Your task to perform on an android device: clear all cookies in the chrome app Image 0: 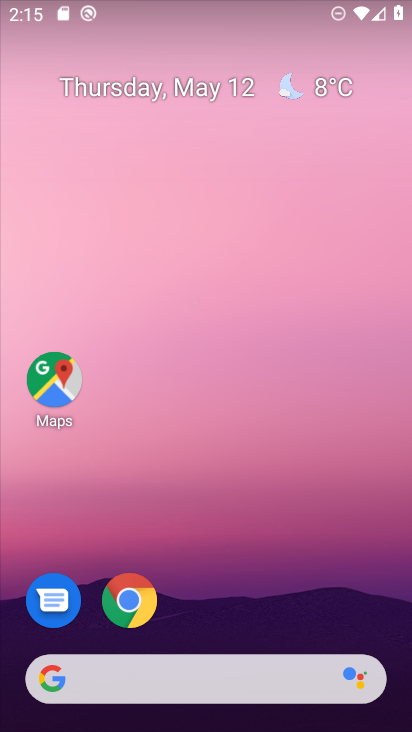
Step 0: click (135, 602)
Your task to perform on an android device: clear all cookies in the chrome app Image 1: 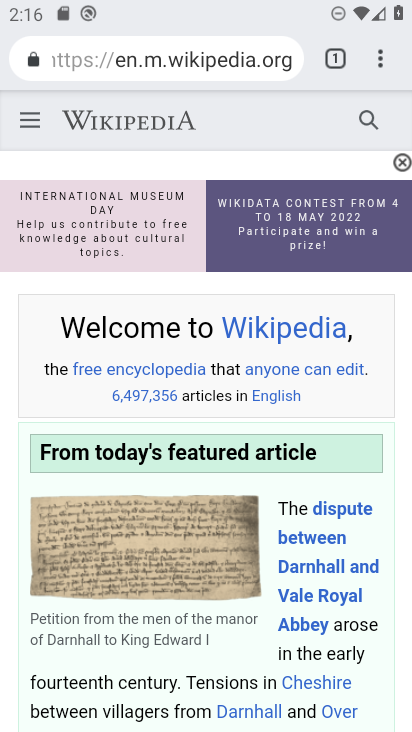
Step 1: click (382, 69)
Your task to perform on an android device: clear all cookies in the chrome app Image 2: 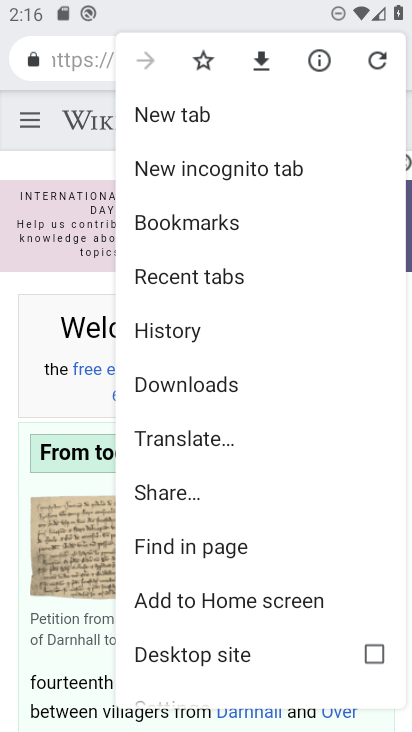
Step 2: drag from (178, 618) to (211, 291)
Your task to perform on an android device: clear all cookies in the chrome app Image 3: 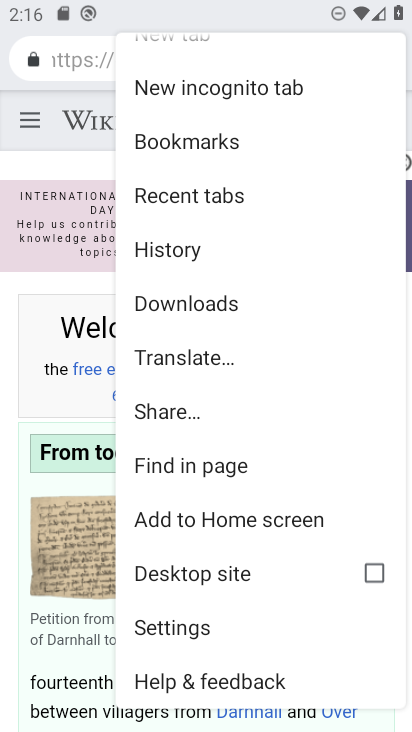
Step 3: click (168, 620)
Your task to perform on an android device: clear all cookies in the chrome app Image 4: 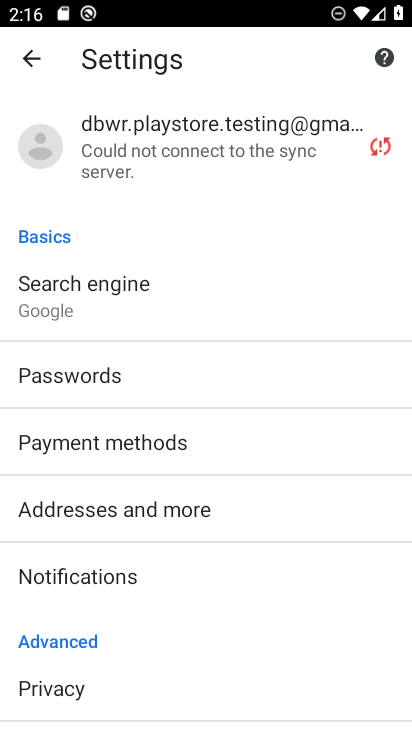
Step 4: drag from (141, 634) to (149, 270)
Your task to perform on an android device: clear all cookies in the chrome app Image 5: 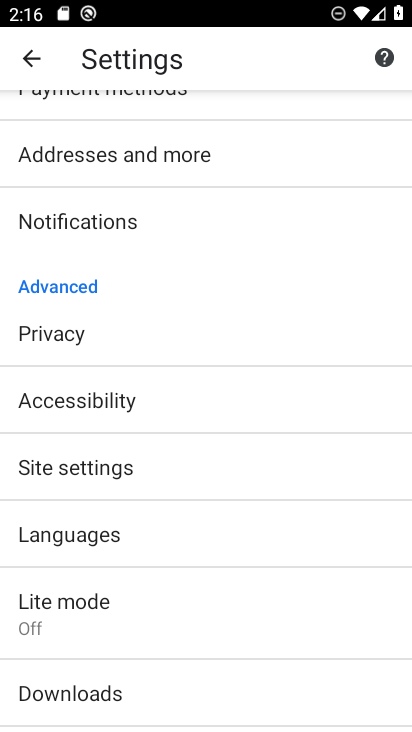
Step 5: click (66, 331)
Your task to perform on an android device: clear all cookies in the chrome app Image 6: 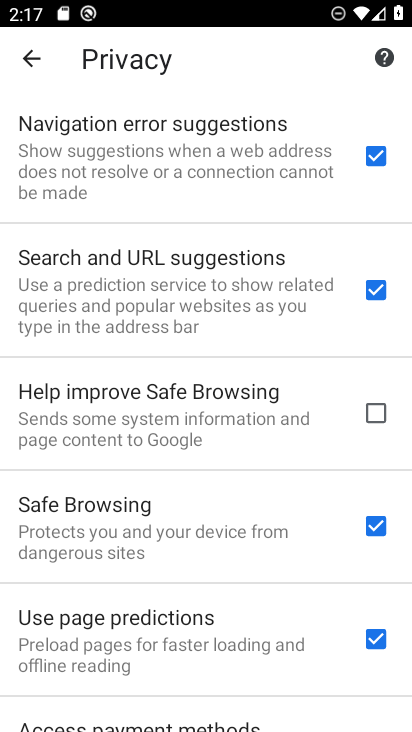
Step 6: drag from (198, 203) to (191, 690)
Your task to perform on an android device: clear all cookies in the chrome app Image 7: 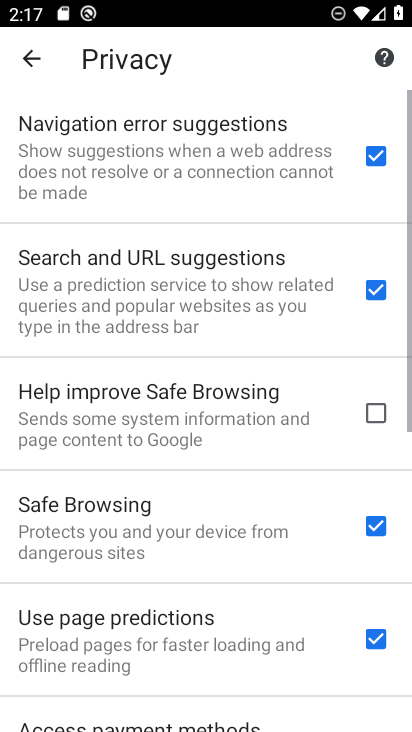
Step 7: drag from (156, 675) to (174, 238)
Your task to perform on an android device: clear all cookies in the chrome app Image 8: 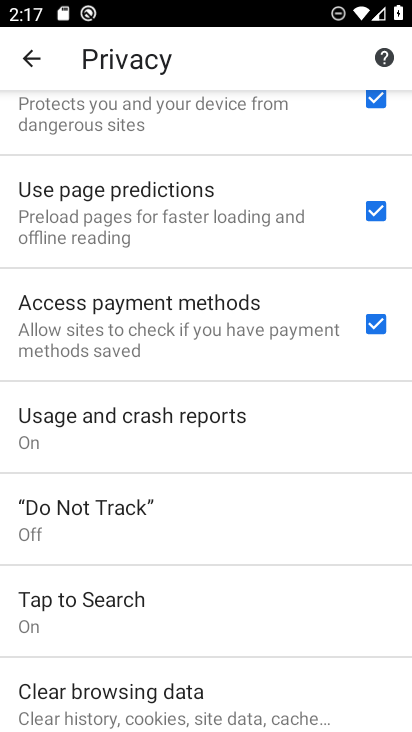
Step 8: drag from (146, 652) to (146, 281)
Your task to perform on an android device: clear all cookies in the chrome app Image 9: 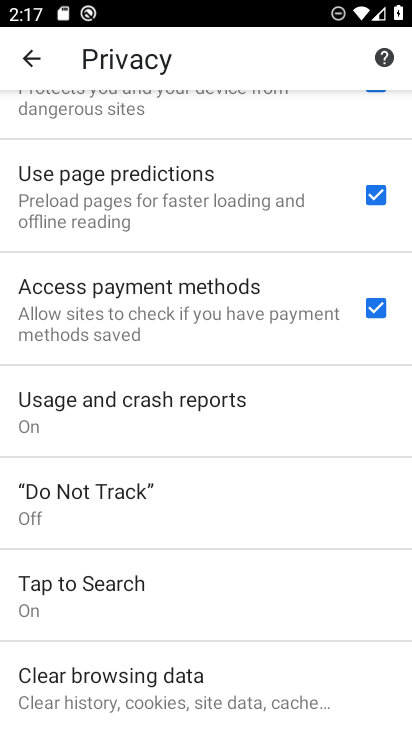
Step 9: click (129, 679)
Your task to perform on an android device: clear all cookies in the chrome app Image 10: 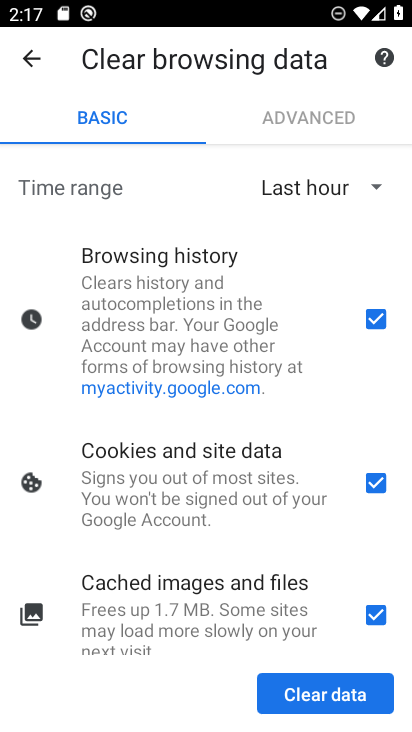
Step 10: drag from (194, 663) to (209, 289)
Your task to perform on an android device: clear all cookies in the chrome app Image 11: 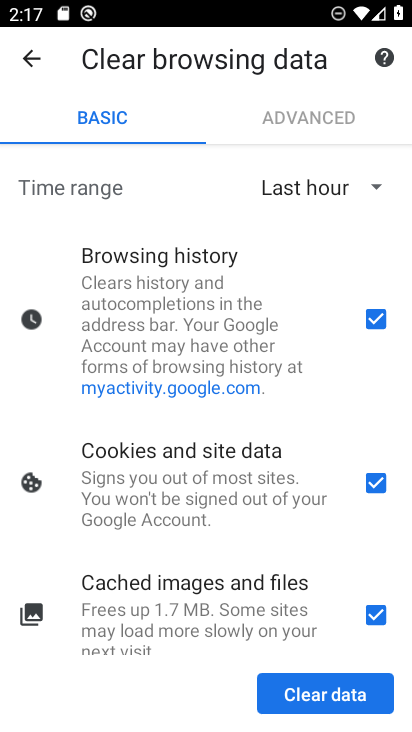
Step 11: drag from (175, 618) to (187, 266)
Your task to perform on an android device: clear all cookies in the chrome app Image 12: 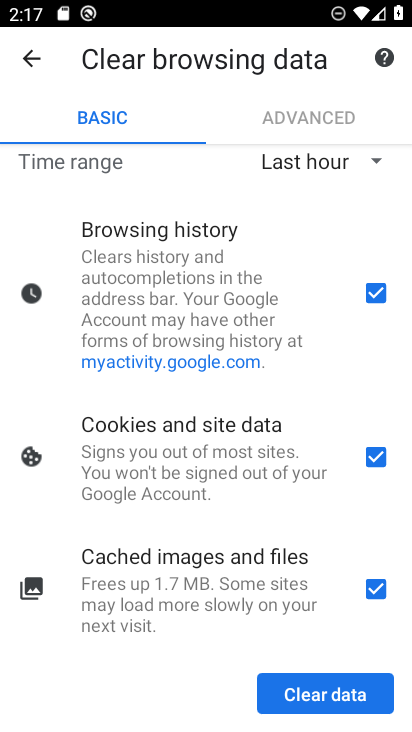
Step 12: drag from (160, 634) to (162, 280)
Your task to perform on an android device: clear all cookies in the chrome app Image 13: 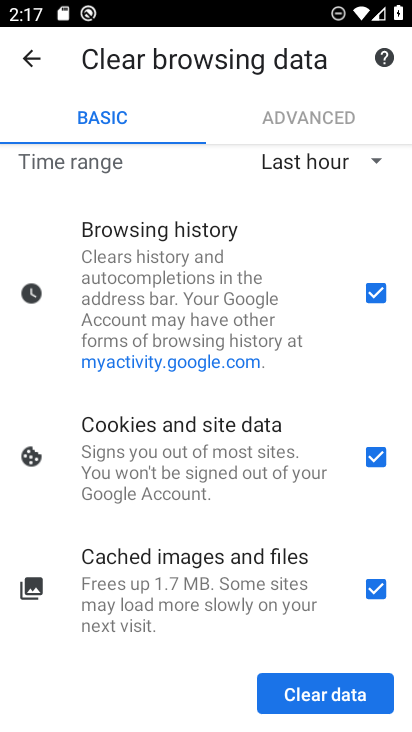
Step 13: click (377, 283)
Your task to perform on an android device: clear all cookies in the chrome app Image 14: 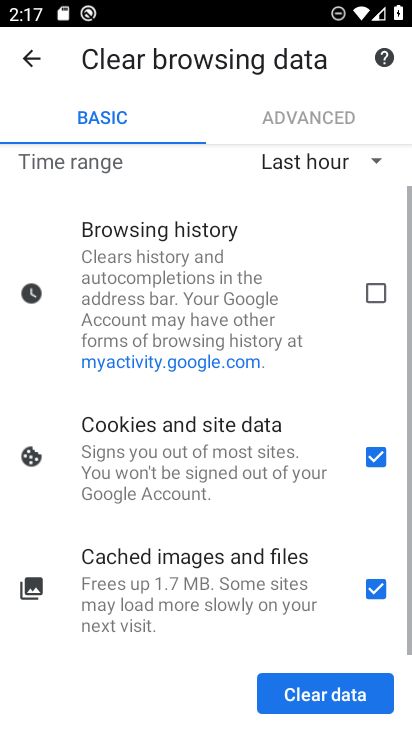
Step 14: click (374, 585)
Your task to perform on an android device: clear all cookies in the chrome app Image 15: 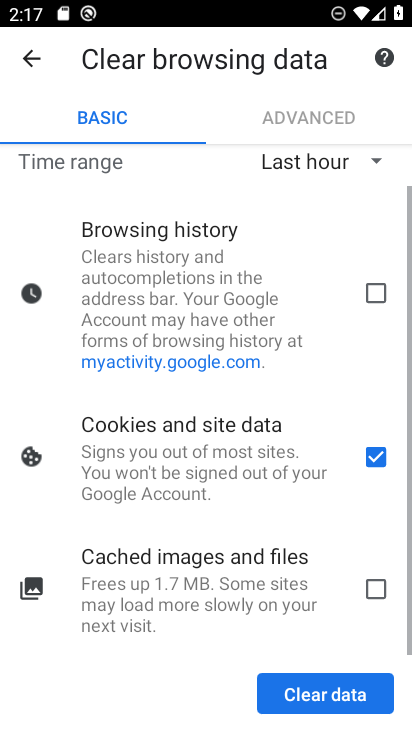
Step 15: click (352, 697)
Your task to perform on an android device: clear all cookies in the chrome app Image 16: 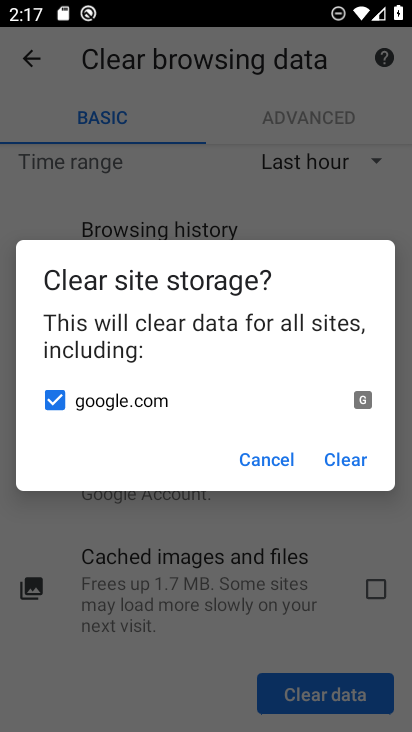
Step 16: click (349, 460)
Your task to perform on an android device: clear all cookies in the chrome app Image 17: 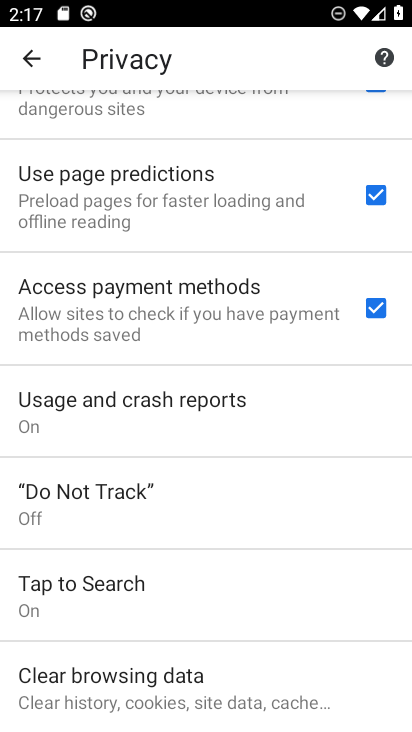
Step 17: task complete